Your task to perform on an android device: change text size in settings app Image 0: 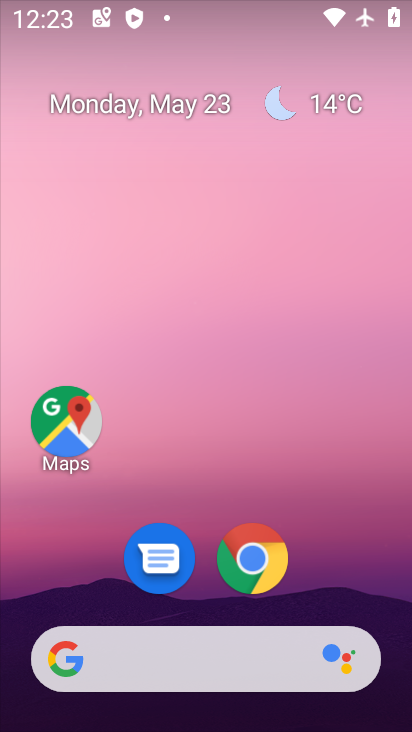
Step 0: drag from (354, 618) to (382, 2)
Your task to perform on an android device: change text size in settings app Image 1: 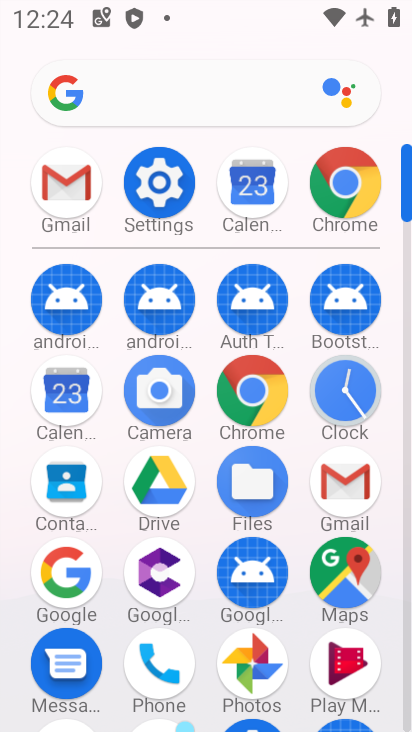
Step 1: click (155, 189)
Your task to perform on an android device: change text size in settings app Image 2: 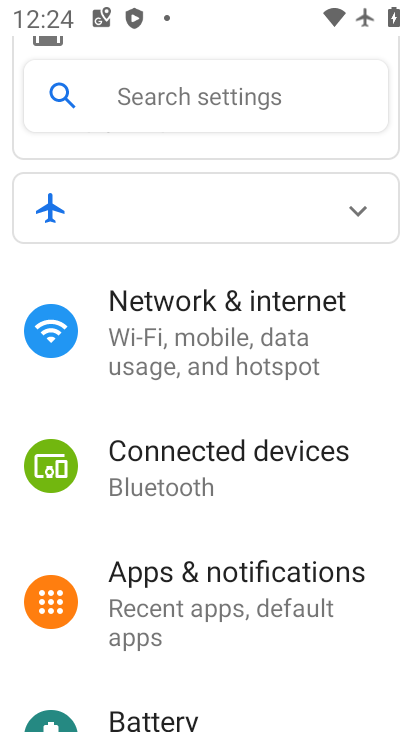
Step 2: drag from (309, 568) to (303, 178)
Your task to perform on an android device: change text size in settings app Image 3: 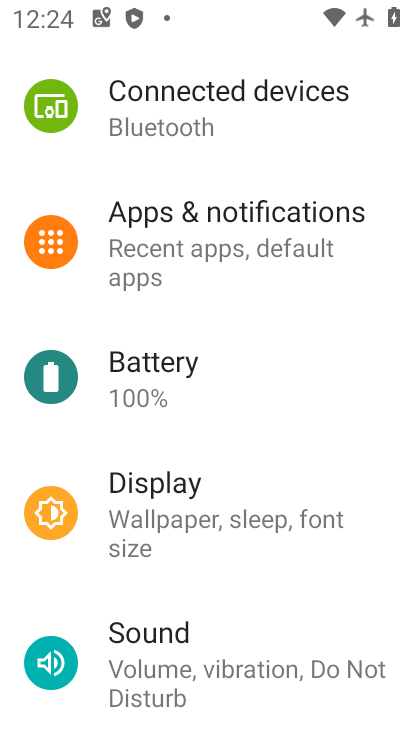
Step 3: click (159, 505)
Your task to perform on an android device: change text size in settings app Image 4: 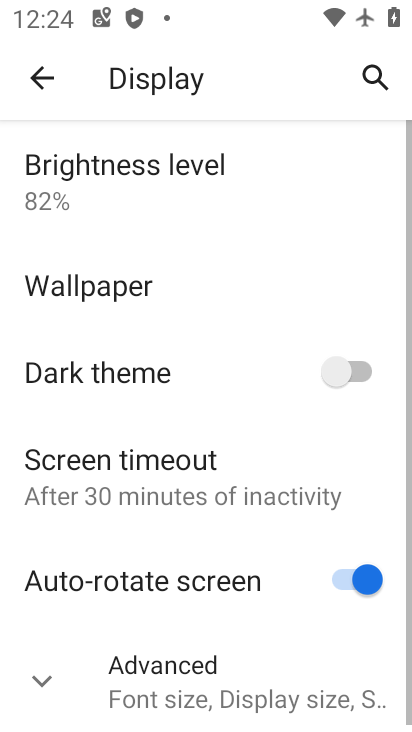
Step 4: drag from (158, 527) to (157, 167)
Your task to perform on an android device: change text size in settings app Image 5: 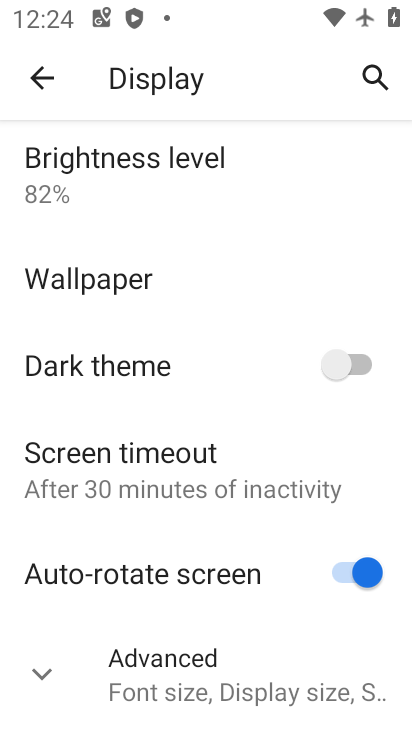
Step 5: click (34, 678)
Your task to perform on an android device: change text size in settings app Image 6: 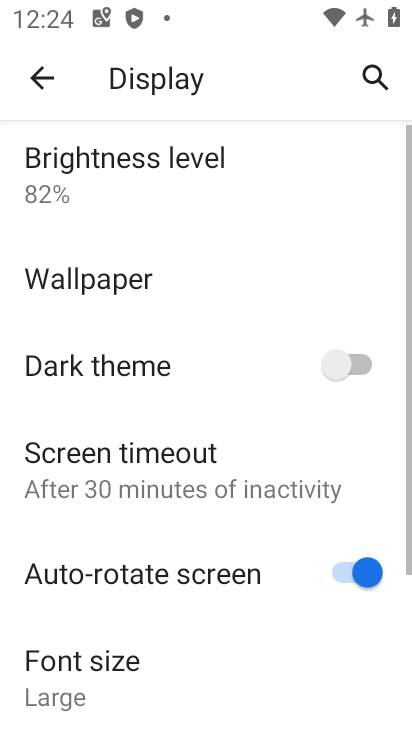
Step 6: drag from (152, 671) to (163, 429)
Your task to perform on an android device: change text size in settings app Image 7: 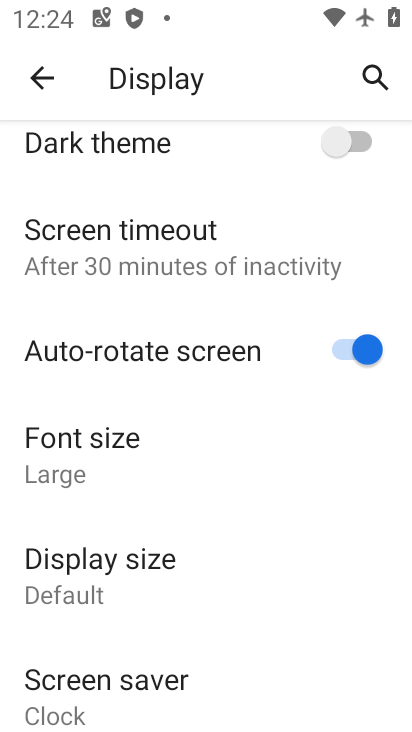
Step 7: click (54, 455)
Your task to perform on an android device: change text size in settings app Image 8: 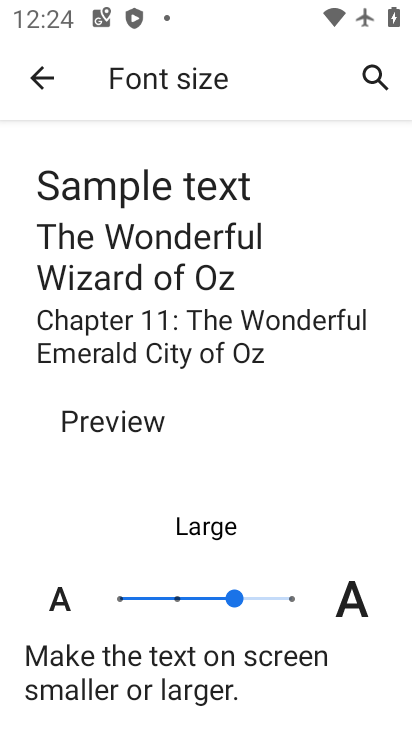
Step 8: click (172, 600)
Your task to perform on an android device: change text size in settings app Image 9: 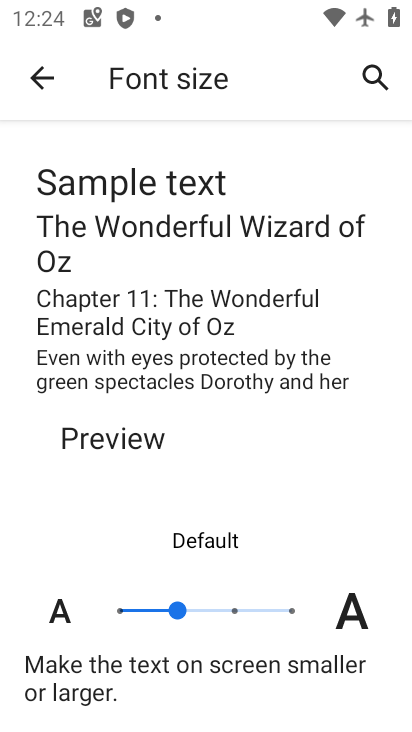
Step 9: task complete